Your task to perform on an android device: change the upload size in google photos Image 0: 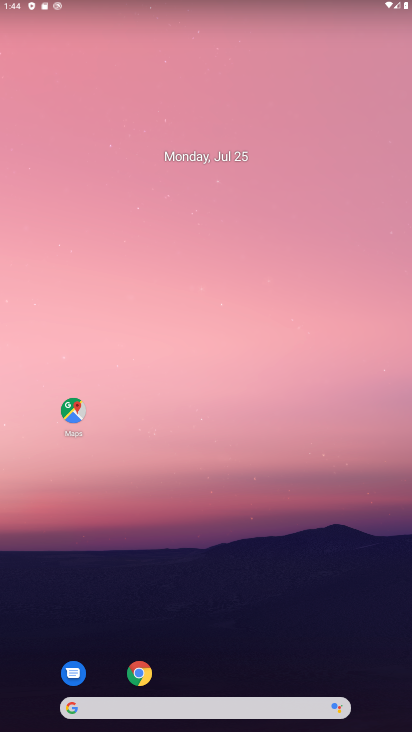
Step 0: drag from (192, 670) to (166, 6)
Your task to perform on an android device: change the upload size in google photos Image 1: 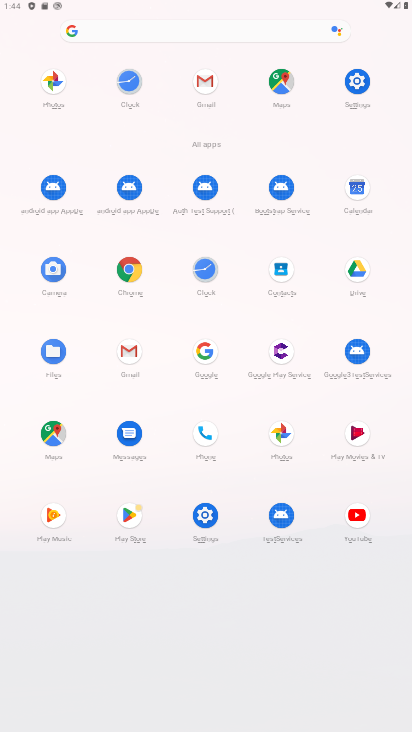
Step 1: click (51, 101)
Your task to perform on an android device: change the upload size in google photos Image 2: 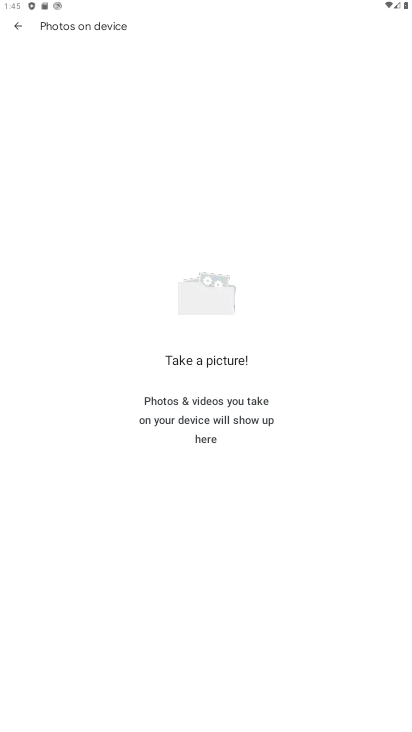
Step 2: click (27, 37)
Your task to perform on an android device: change the upload size in google photos Image 3: 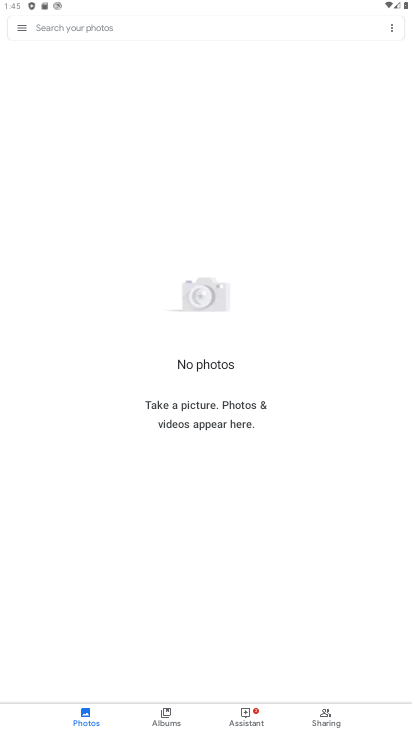
Step 3: click (27, 37)
Your task to perform on an android device: change the upload size in google photos Image 4: 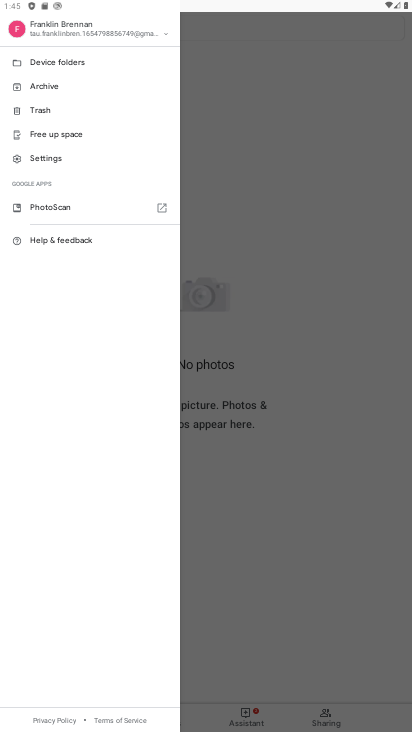
Step 4: click (61, 165)
Your task to perform on an android device: change the upload size in google photos Image 5: 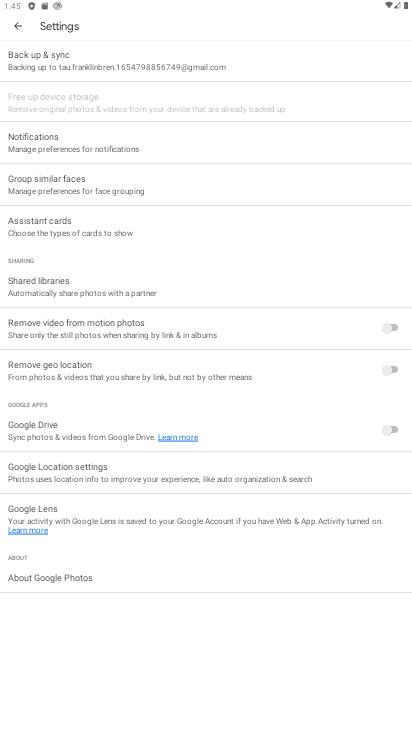
Step 5: click (138, 69)
Your task to perform on an android device: change the upload size in google photos Image 6: 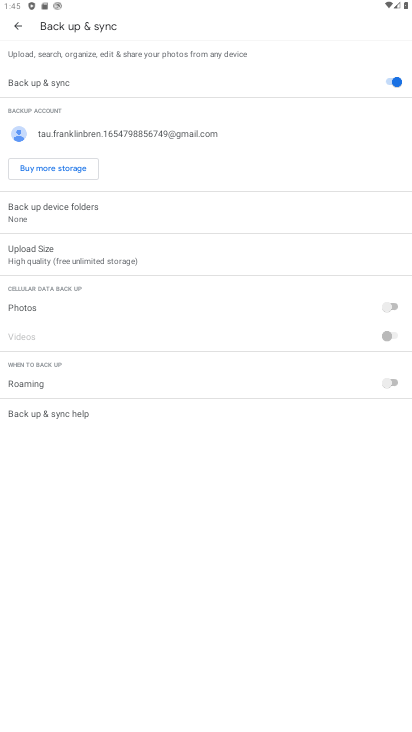
Step 6: click (172, 255)
Your task to perform on an android device: change the upload size in google photos Image 7: 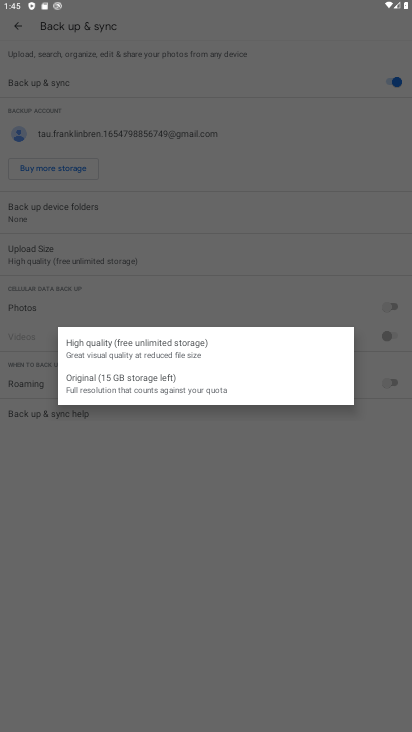
Step 7: click (160, 376)
Your task to perform on an android device: change the upload size in google photos Image 8: 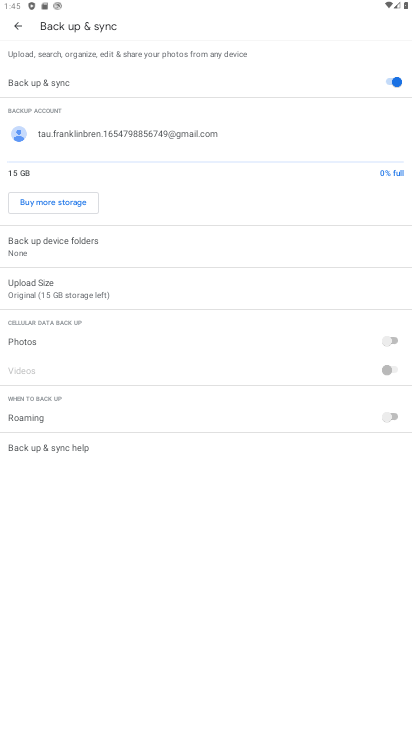
Step 8: task complete